Your task to perform on an android device: Go to display settings Image 0: 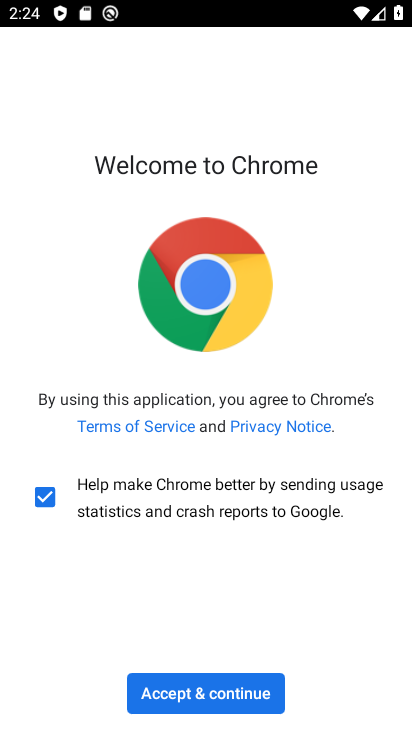
Step 0: press home button
Your task to perform on an android device: Go to display settings Image 1: 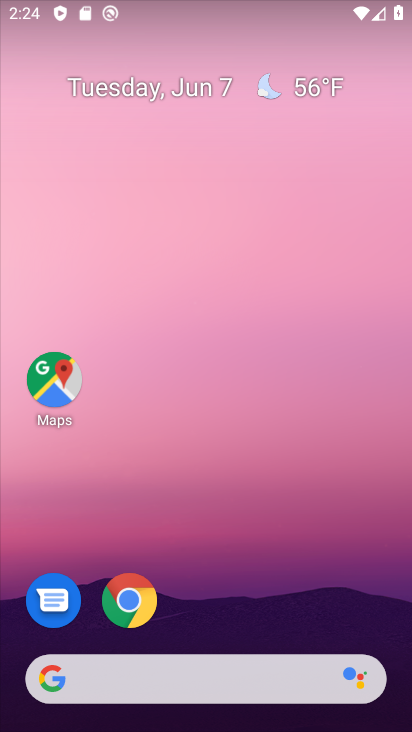
Step 1: drag from (397, 563) to (361, 188)
Your task to perform on an android device: Go to display settings Image 2: 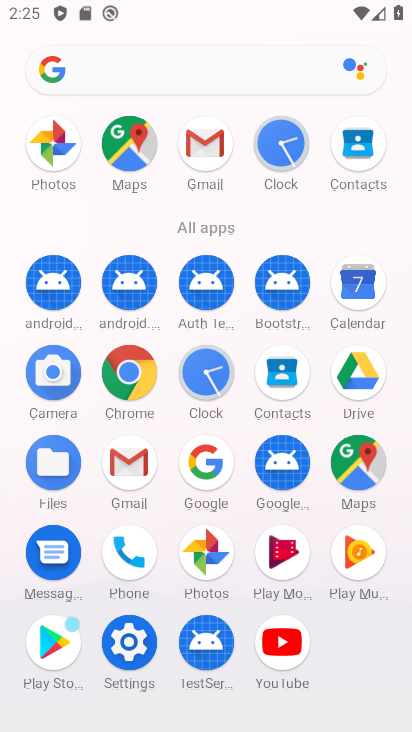
Step 2: click (136, 623)
Your task to perform on an android device: Go to display settings Image 3: 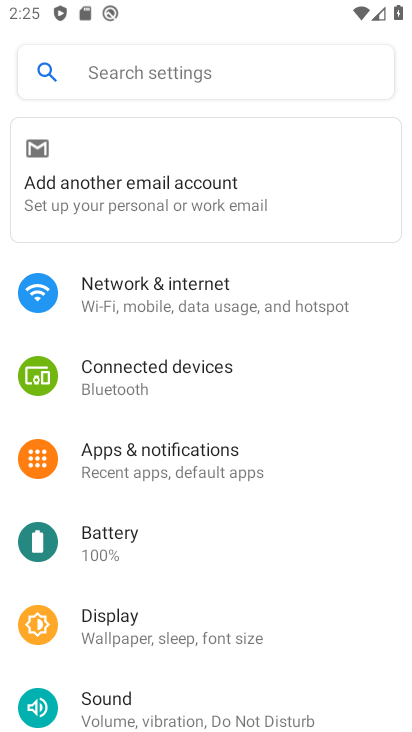
Step 3: click (126, 630)
Your task to perform on an android device: Go to display settings Image 4: 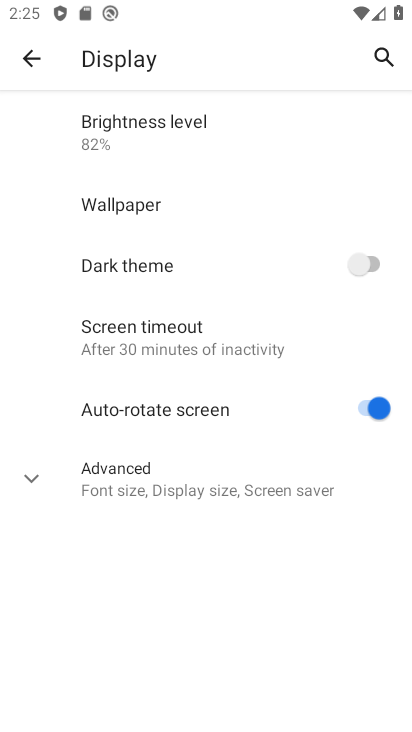
Step 4: click (27, 488)
Your task to perform on an android device: Go to display settings Image 5: 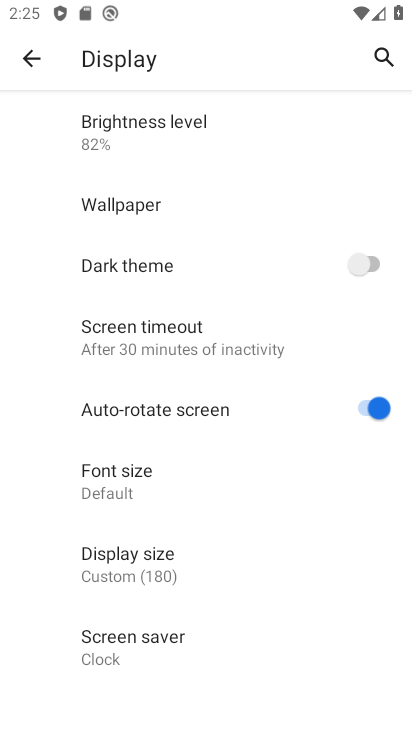
Step 5: task complete